Your task to perform on an android device: turn smart compose on in the gmail app Image 0: 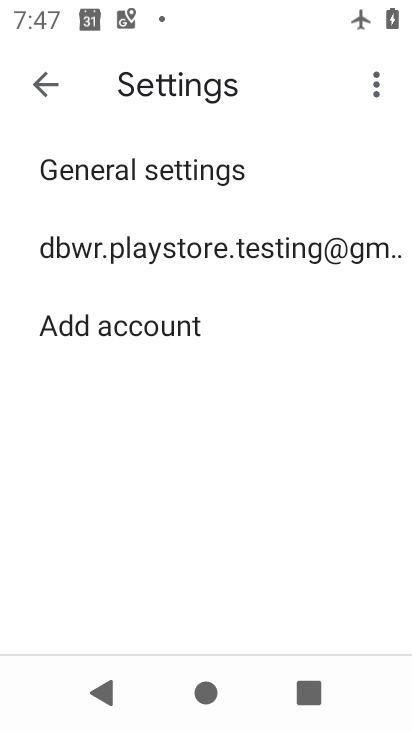
Step 0: press home button
Your task to perform on an android device: turn smart compose on in the gmail app Image 1: 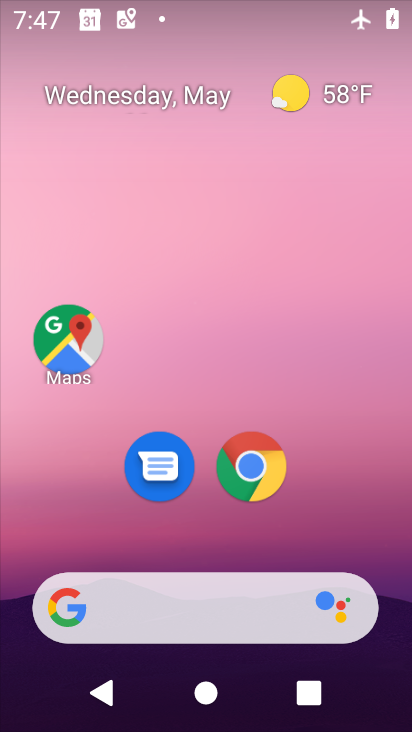
Step 1: drag from (215, 526) to (269, 5)
Your task to perform on an android device: turn smart compose on in the gmail app Image 2: 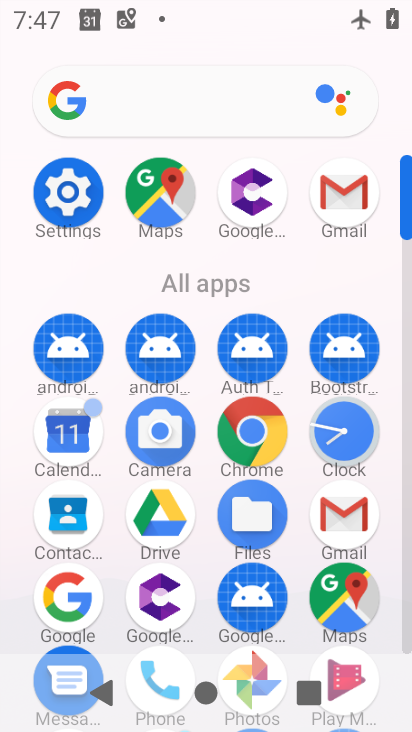
Step 2: click (337, 510)
Your task to perform on an android device: turn smart compose on in the gmail app Image 3: 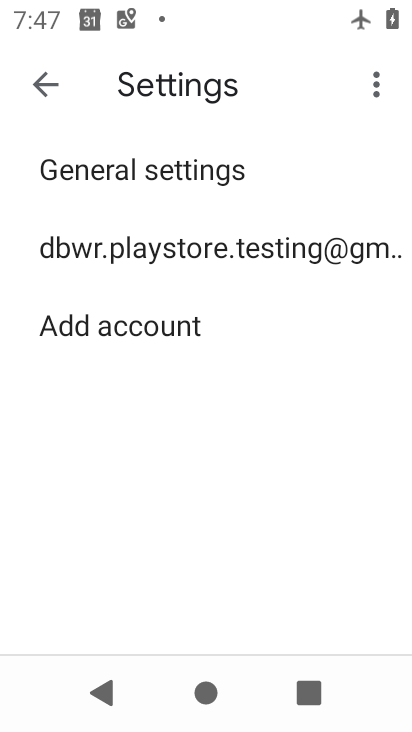
Step 3: click (190, 243)
Your task to perform on an android device: turn smart compose on in the gmail app Image 4: 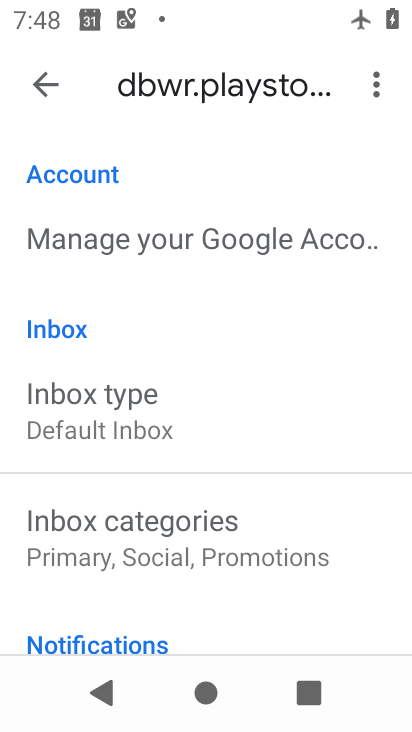
Step 4: task complete